Your task to perform on an android device: Open Yahoo.com Image 0: 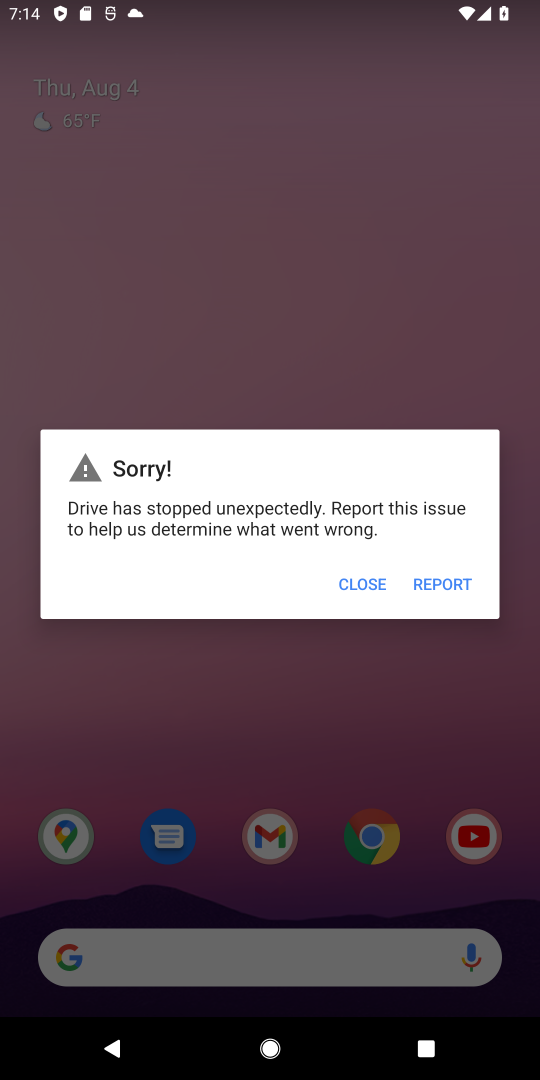
Step 0: click (355, 590)
Your task to perform on an android device: Open Yahoo.com Image 1: 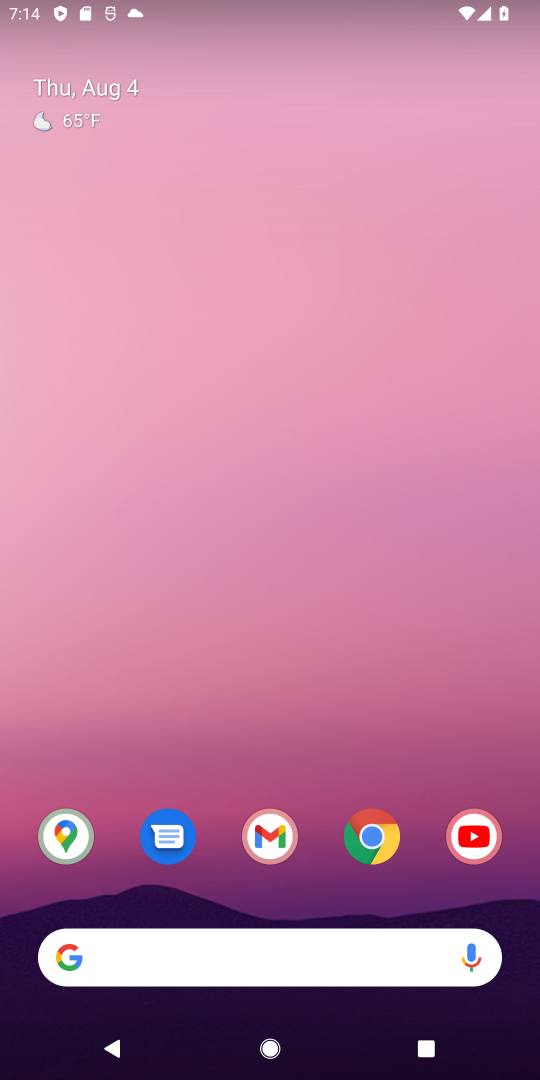
Step 1: click (366, 828)
Your task to perform on an android device: Open Yahoo.com Image 2: 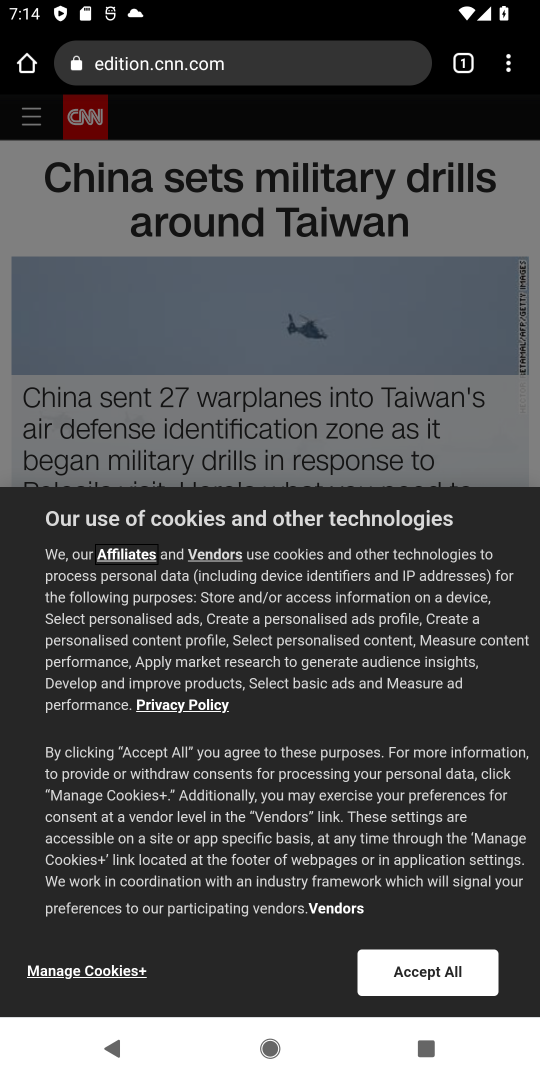
Step 2: click (469, 57)
Your task to perform on an android device: Open Yahoo.com Image 3: 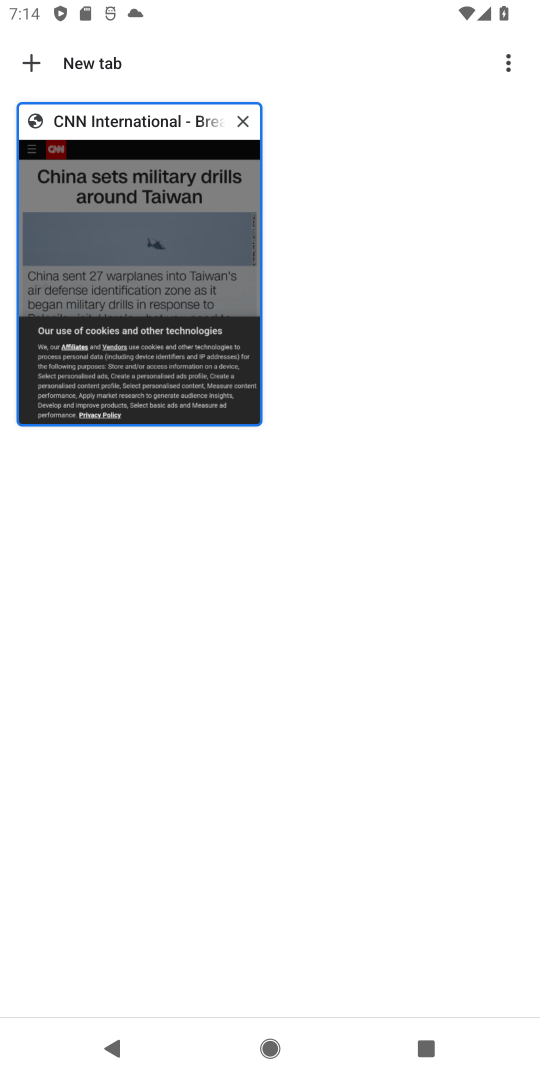
Step 3: click (35, 59)
Your task to perform on an android device: Open Yahoo.com Image 4: 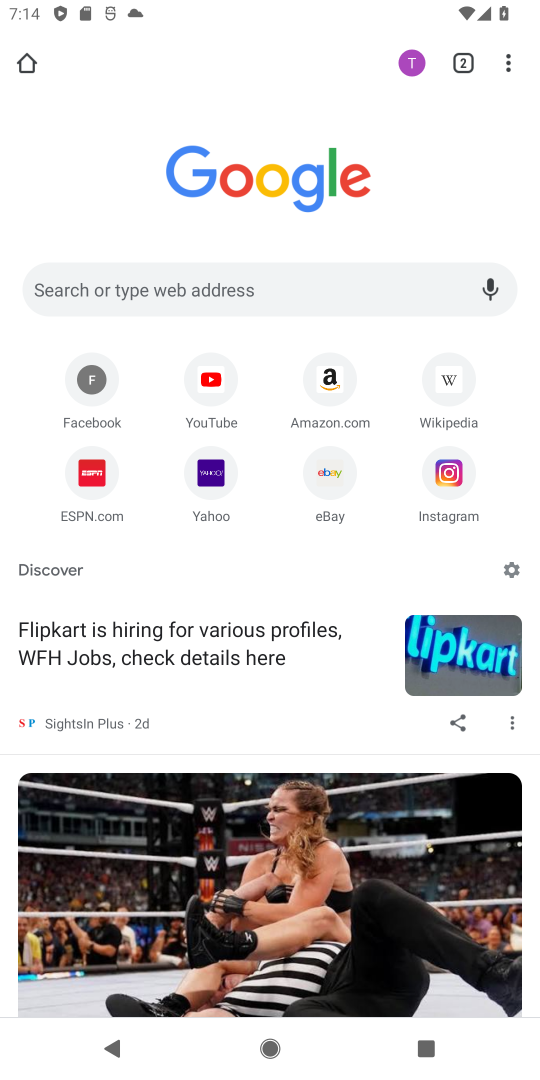
Step 4: click (222, 479)
Your task to perform on an android device: Open Yahoo.com Image 5: 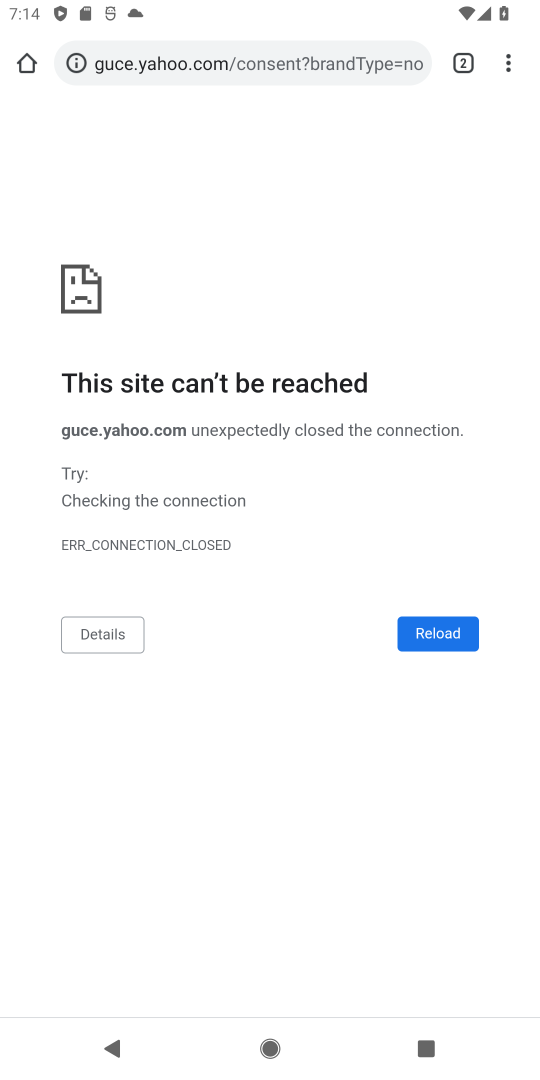
Step 5: task complete